Your task to perform on an android device: turn on showing notifications on the lock screen Image 0: 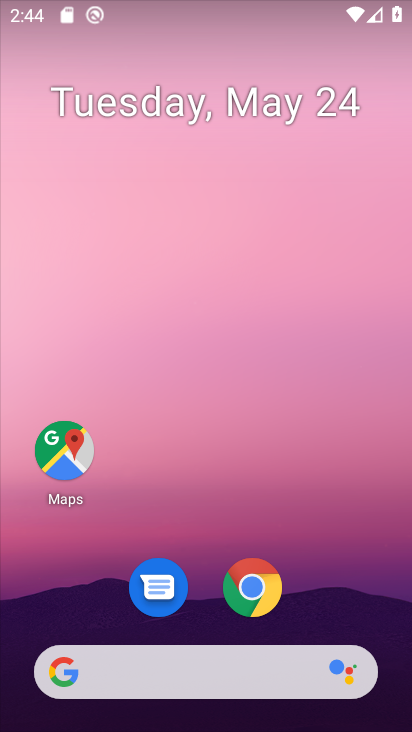
Step 0: drag from (197, 614) to (258, 223)
Your task to perform on an android device: turn on showing notifications on the lock screen Image 1: 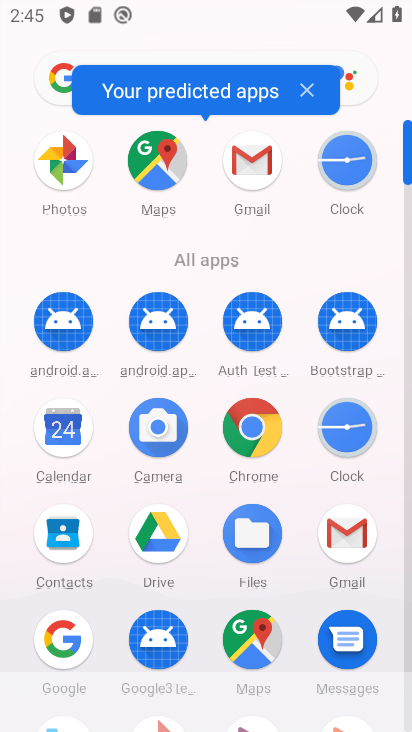
Step 1: drag from (205, 537) to (274, 283)
Your task to perform on an android device: turn on showing notifications on the lock screen Image 2: 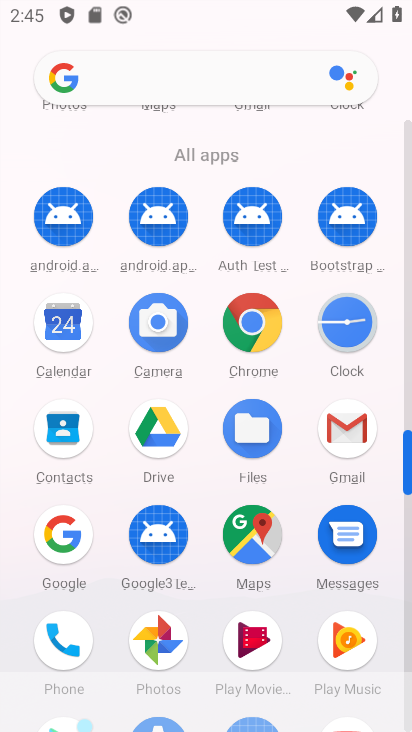
Step 2: drag from (200, 660) to (277, 410)
Your task to perform on an android device: turn on showing notifications on the lock screen Image 3: 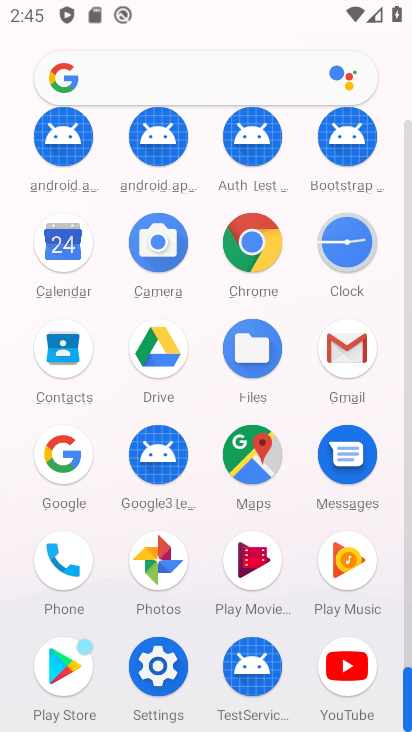
Step 3: click (154, 660)
Your task to perform on an android device: turn on showing notifications on the lock screen Image 4: 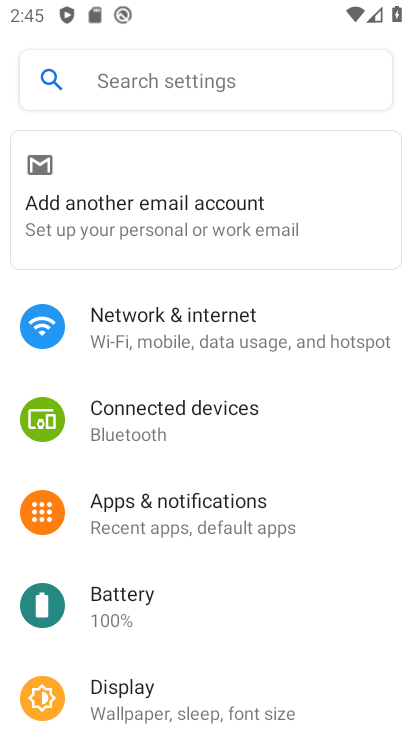
Step 4: click (175, 504)
Your task to perform on an android device: turn on showing notifications on the lock screen Image 5: 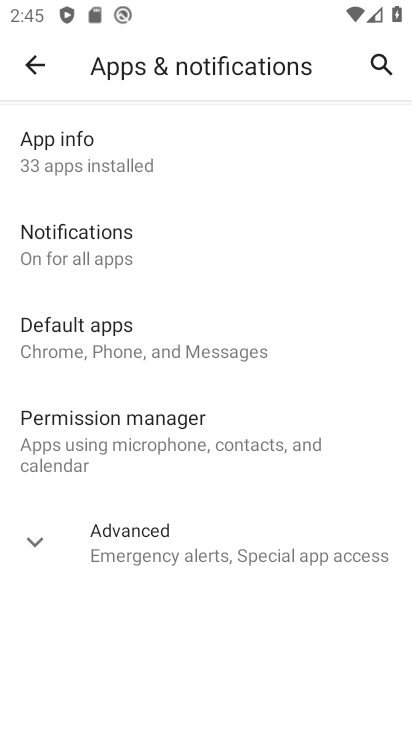
Step 5: click (107, 253)
Your task to perform on an android device: turn on showing notifications on the lock screen Image 6: 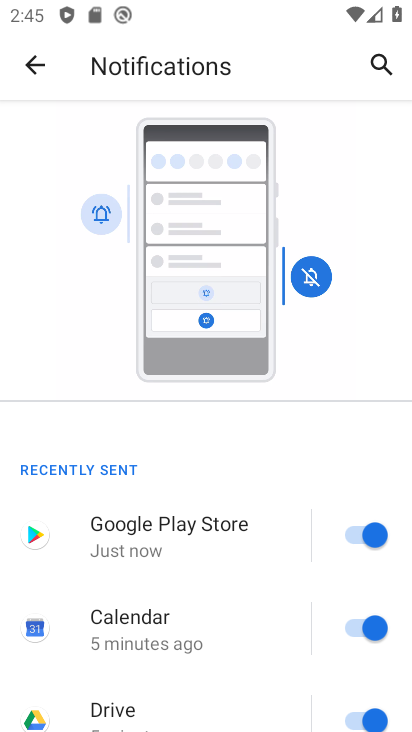
Step 6: drag from (226, 609) to (324, 245)
Your task to perform on an android device: turn on showing notifications on the lock screen Image 7: 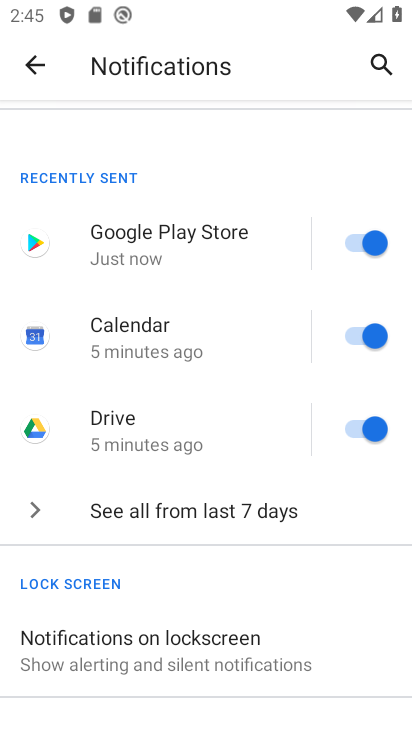
Step 7: click (210, 640)
Your task to perform on an android device: turn on showing notifications on the lock screen Image 8: 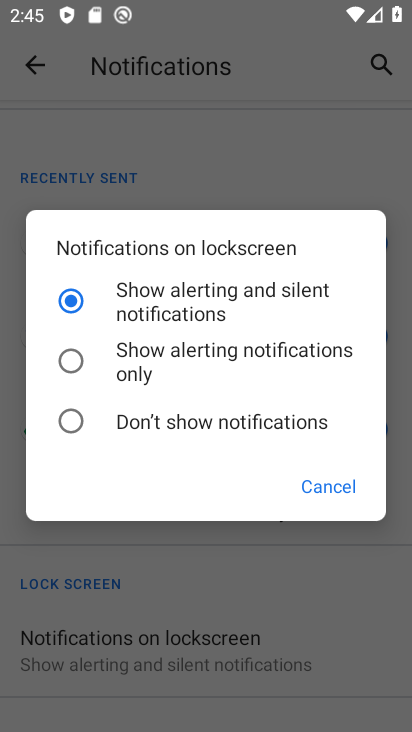
Step 8: task complete